Your task to perform on an android device: Turn on the flashlight Image 0: 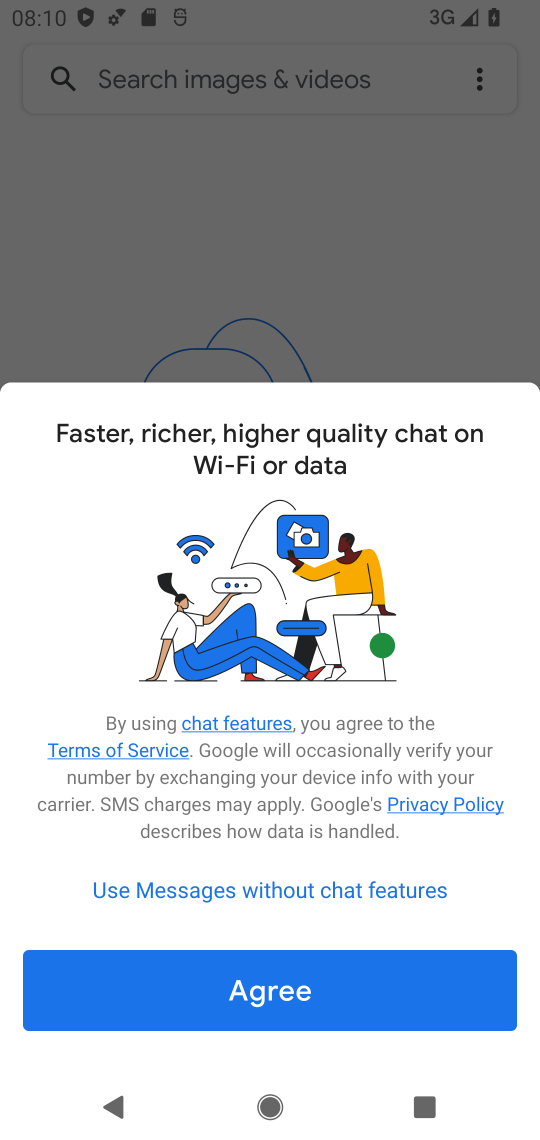
Step 0: press home button
Your task to perform on an android device: Turn on the flashlight Image 1: 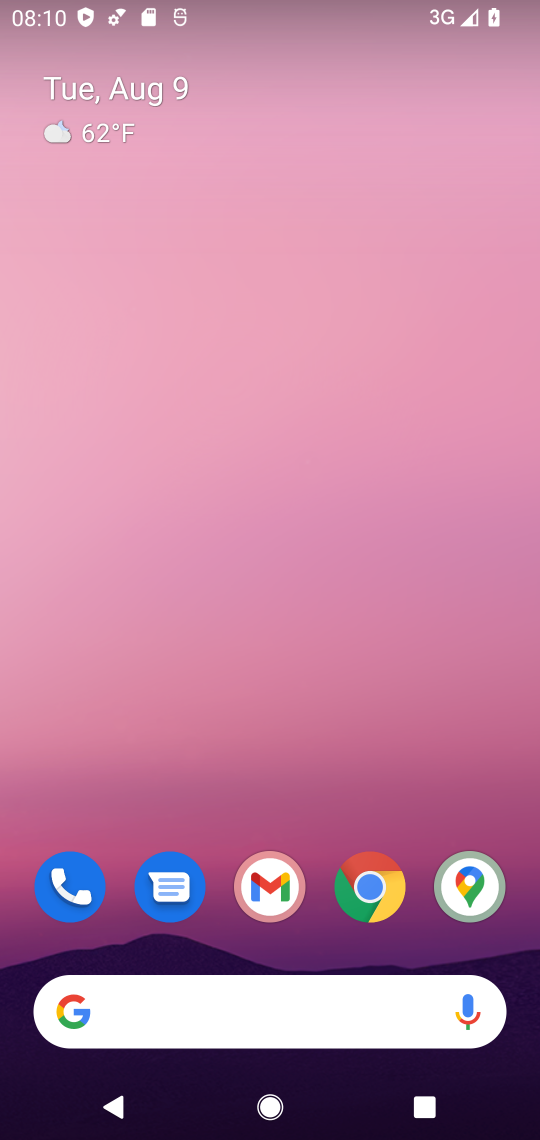
Step 1: drag from (383, 735) to (390, 2)
Your task to perform on an android device: Turn on the flashlight Image 2: 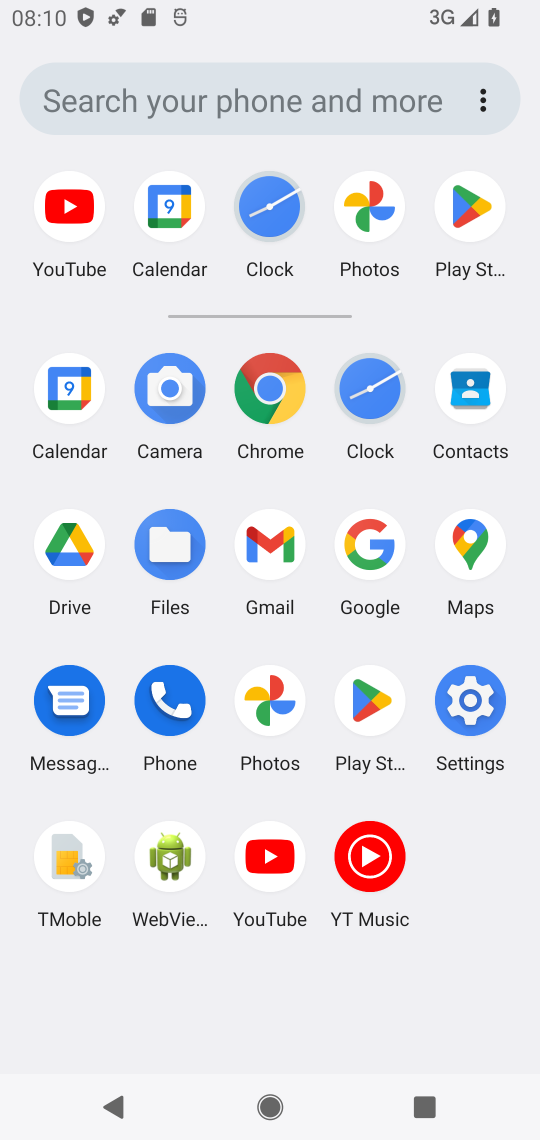
Step 2: click (466, 711)
Your task to perform on an android device: Turn on the flashlight Image 3: 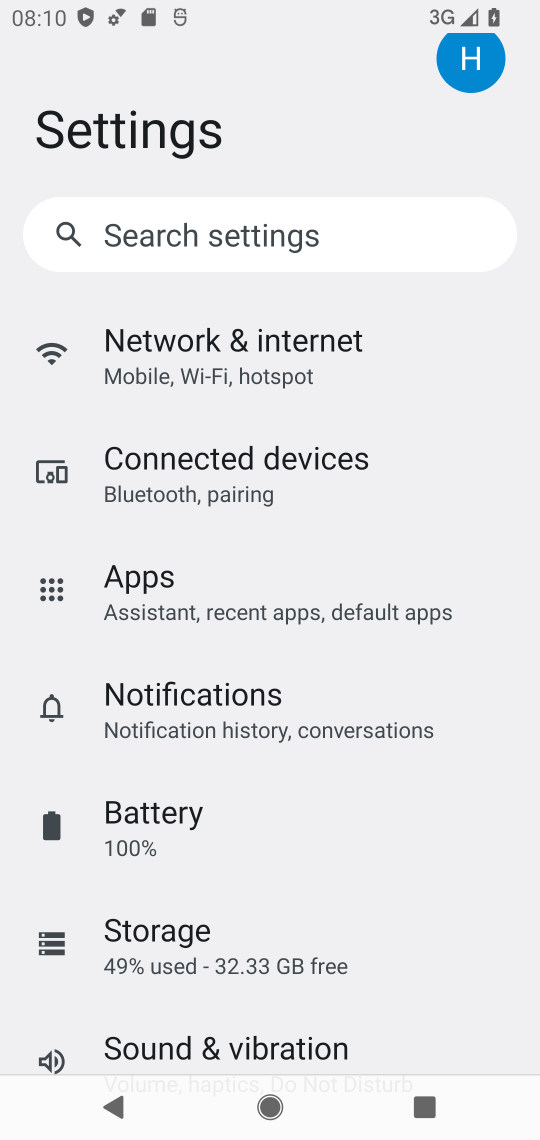
Step 3: click (183, 213)
Your task to perform on an android device: Turn on the flashlight Image 4: 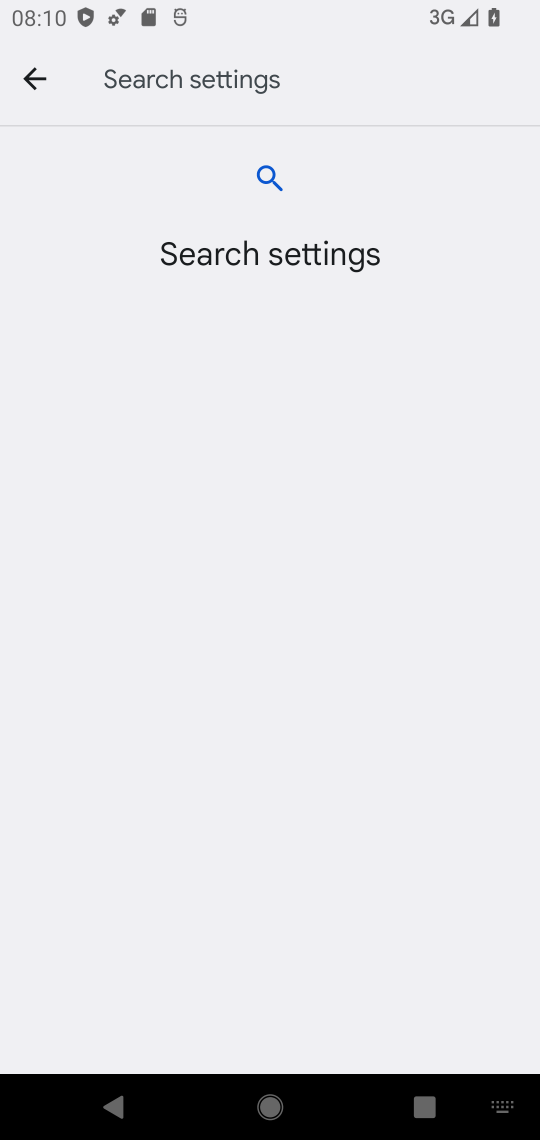
Step 4: type "Flashlight"
Your task to perform on an android device: Turn on the flashlight Image 5: 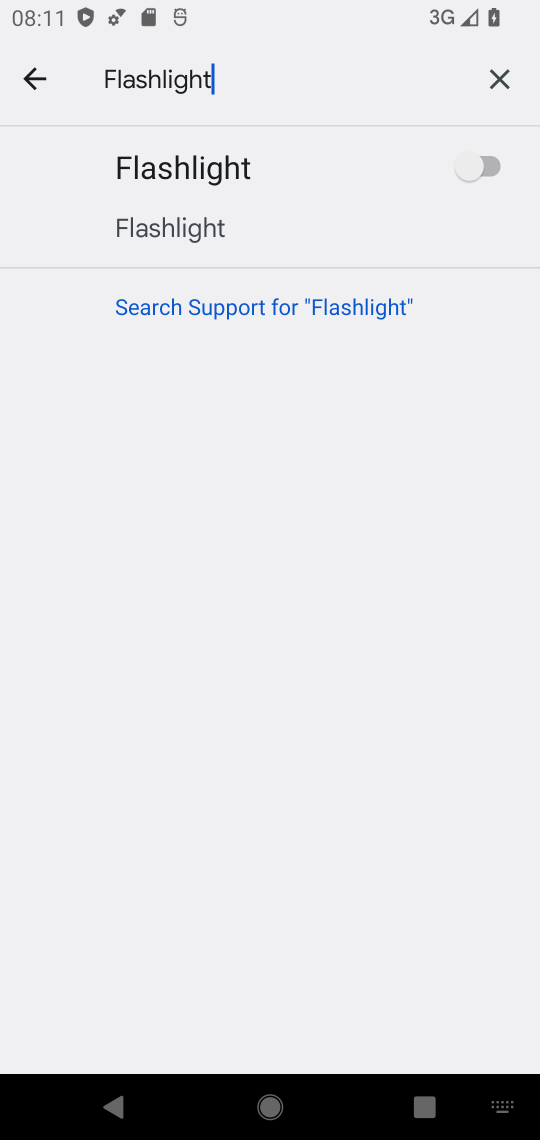
Step 5: click (464, 134)
Your task to perform on an android device: Turn on the flashlight Image 6: 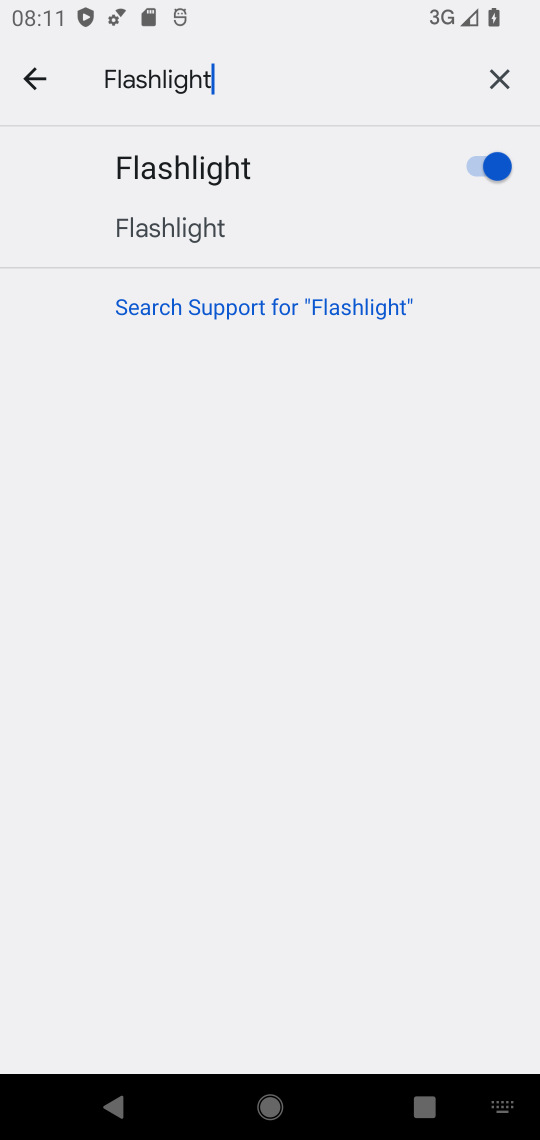
Step 6: task complete